Your task to perform on an android device: uninstall "Speedtest by Ookla" Image 0: 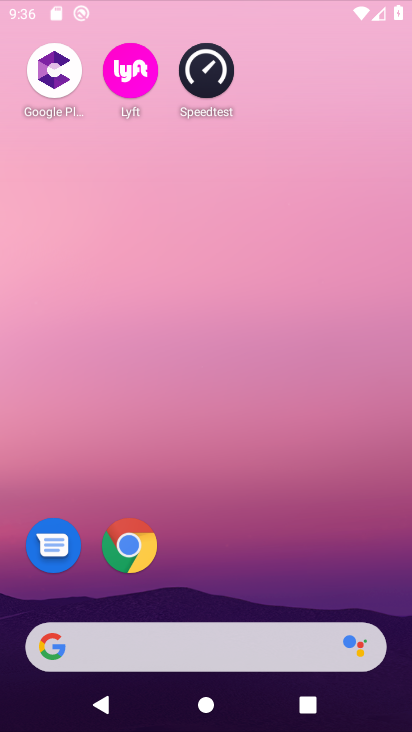
Step 0: press home button
Your task to perform on an android device: uninstall "Speedtest by Ookla" Image 1: 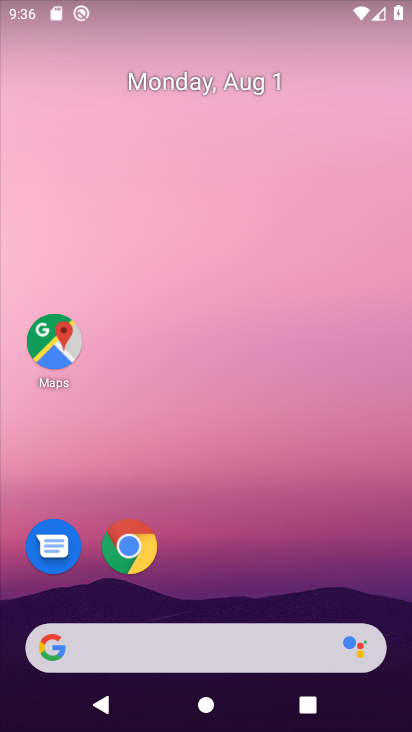
Step 1: drag from (209, 594) to (224, 2)
Your task to perform on an android device: uninstall "Speedtest by Ookla" Image 2: 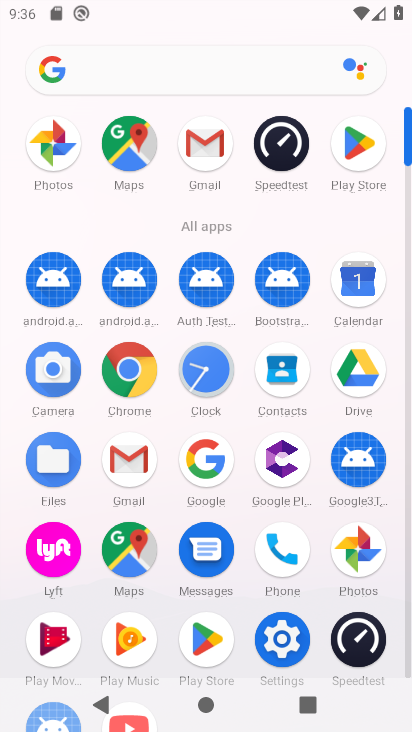
Step 2: click (356, 131)
Your task to perform on an android device: uninstall "Speedtest by Ookla" Image 3: 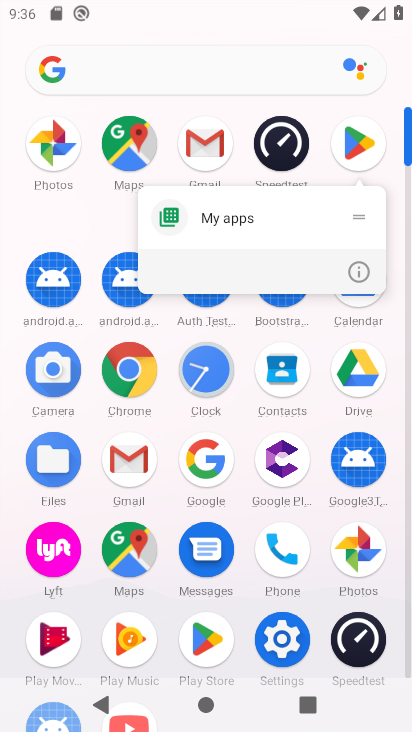
Step 3: click (361, 141)
Your task to perform on an android device: uninstall "Speedtest by Ookla" Image 4: 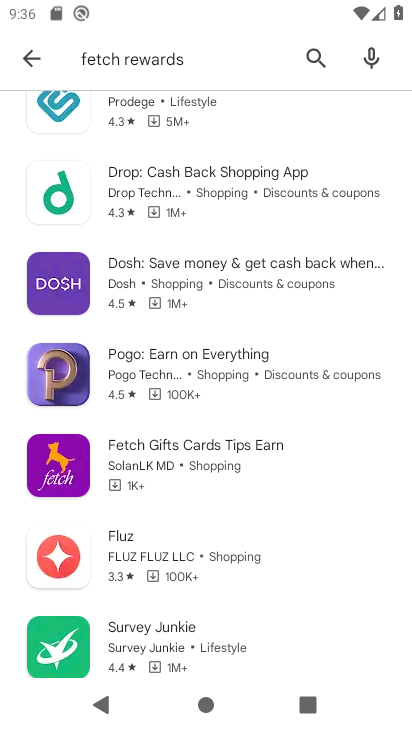
Step 4: click (303, 57)
Your task to perform on an android device: uninstall "Speedtest by Ookla" Image 5: 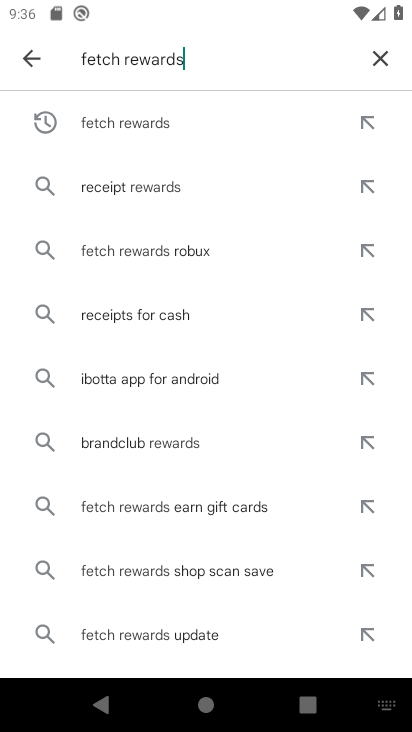
Step 5: click (382, 53)
Your task to perform on an android device: uninstall "Speedtest by Ookla" Image 6: 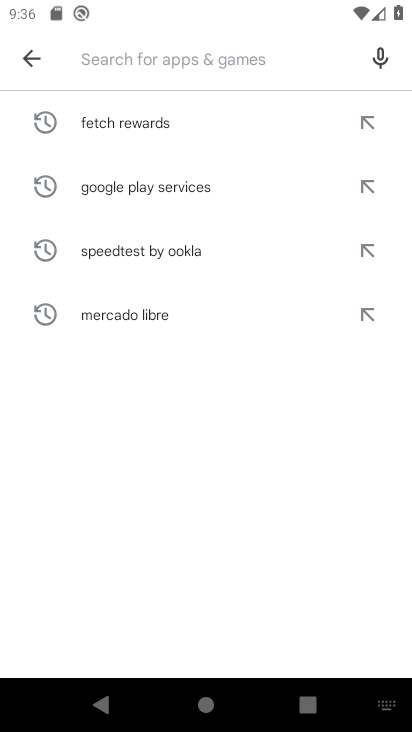
Step 6: type "Speedtest by Ookla"
Your task to perform on an android device: uninstall "Speedtest by Ookla" Image 7: 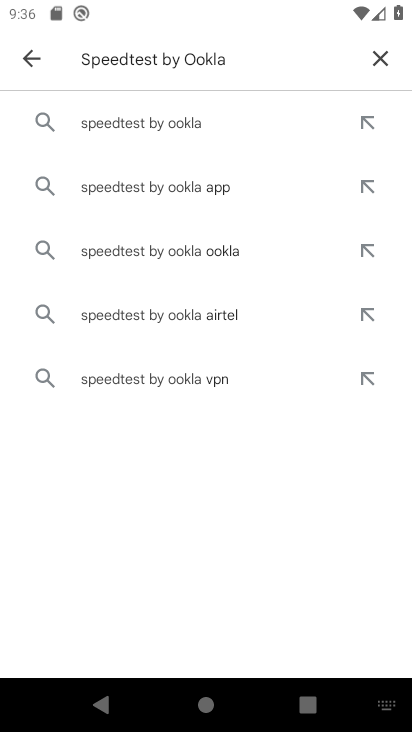
Step 7: click (216, 120)
Your task to perform on an android device: uninstall "Speedtest by Ookla" Image 8: 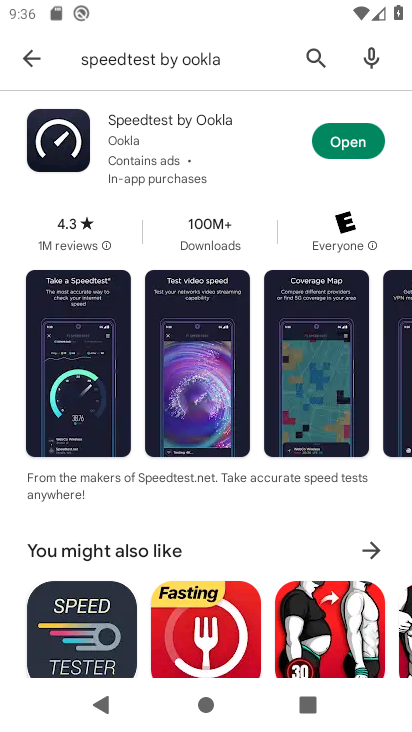
Step 8: click (146, 132)
Your task to perform on an android device: uninstall "Speedtest by Ookla" Image 9: 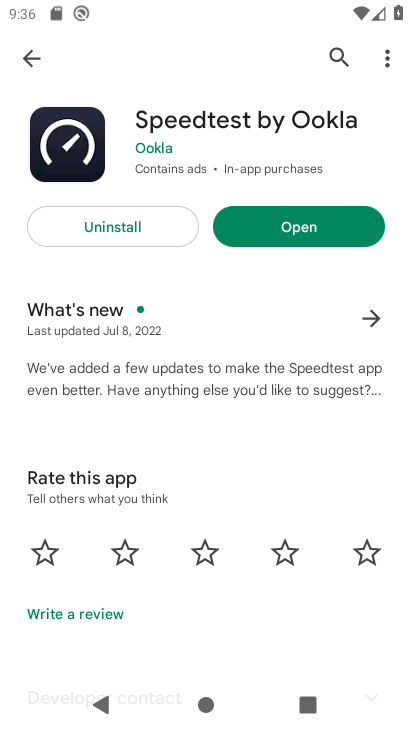
Step 9: click (101, 220)
Your task to perform on an android device: uninstall "Speedtest by Ookla" Image 10: 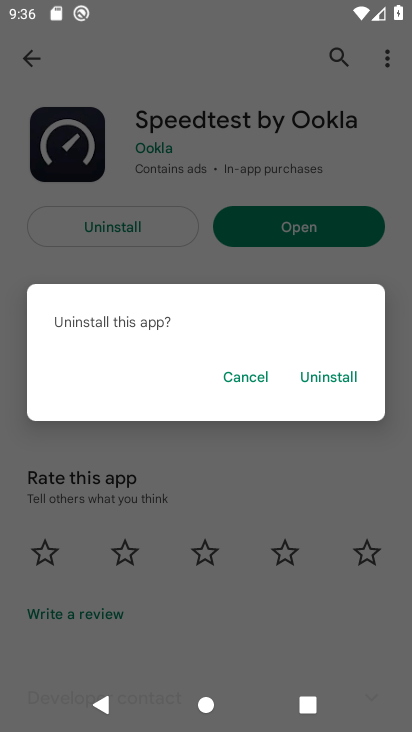
Step 10: click (347, 374)
Your task to perform on an android device: uninstall "Speedtest by Ookla" Image 11: 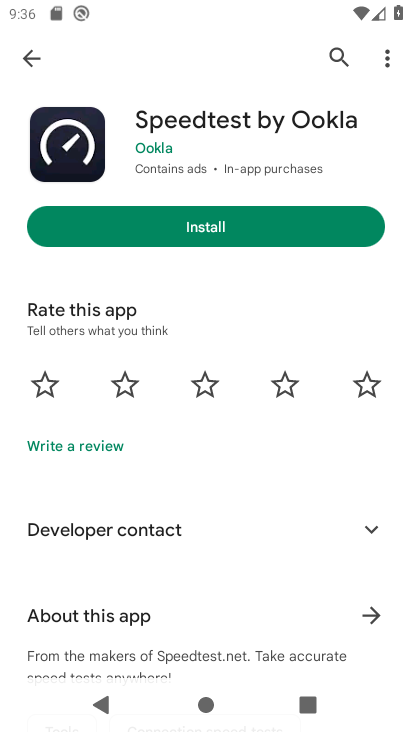
Step 11: task complete